Your task to perform on an android device: Open Yahoo.com Image 0: 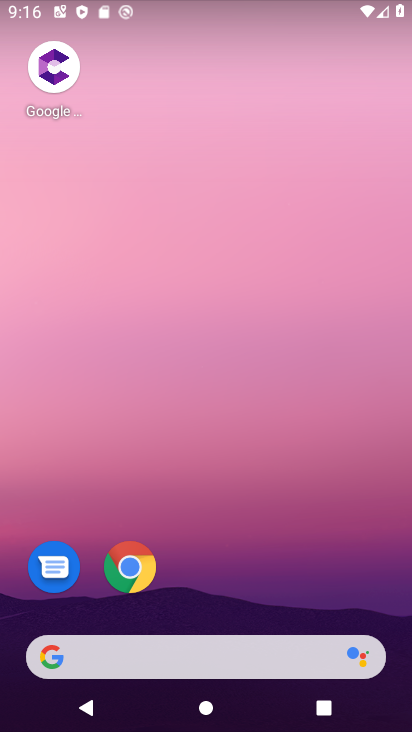
Step 0: click (207, 653)
Your task to perform on an android device: Open Yahoo.com Image 1: 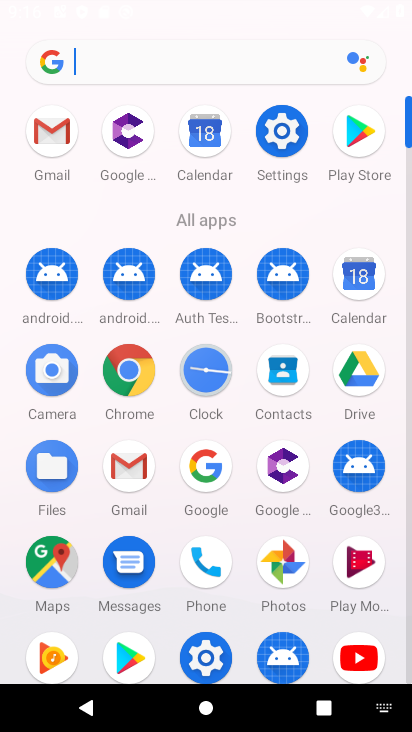
Step 1: type "Yahoo.com"
Your task to perform on an android device: Open Yahoo.com Image 2: 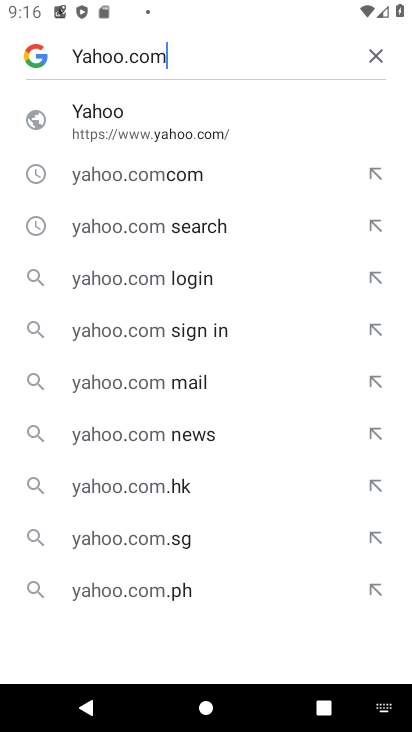
Step 2: click (131, 111)
Your task to perform on an android device: Open Yahoo.com Image 3: 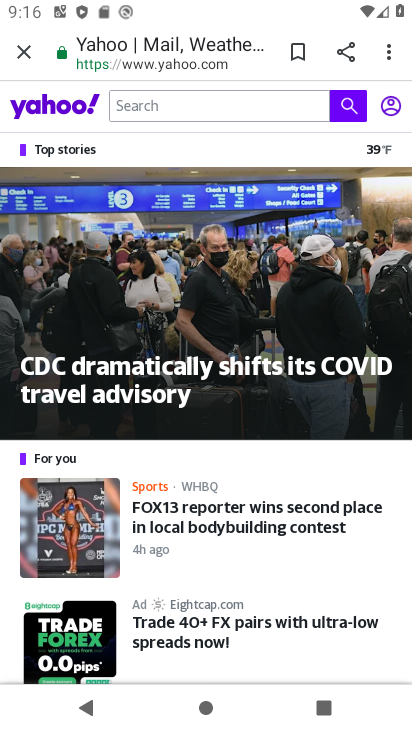
Step 3: task complete